Your task to perform on an android device: turn off improve location accuracy Image 0: 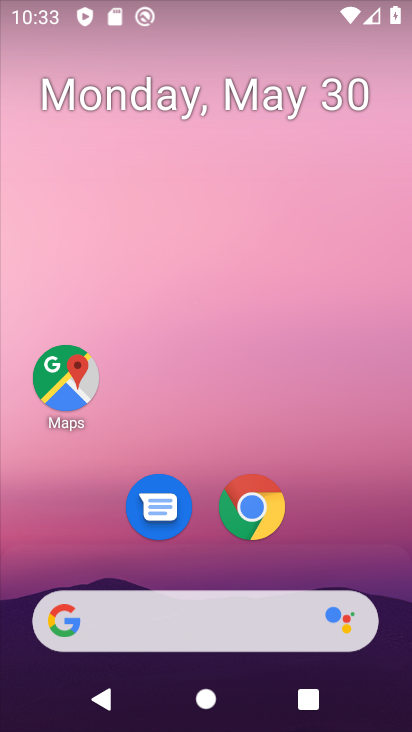
Step 0: drag from (393, 647) to (402, 0)
Your task to perform on an android device: turn off improve location accuracy Image 1: 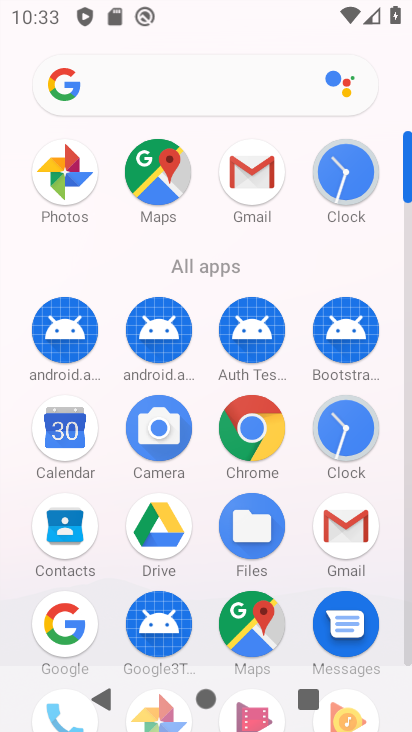
Step 1: drag from (212, 623) to (297, 86)
Your task to perform on an android device: turn off improve location accuracy Image 2: 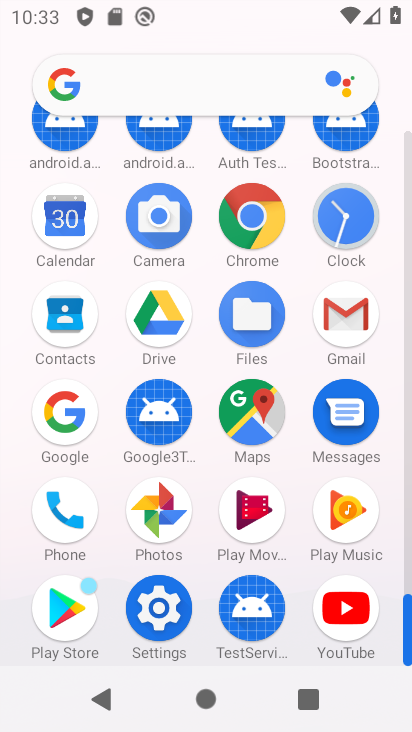
Step 2: click (146, 606)
Your task to perform on an android device: turn off improve location accuracy Image 3: 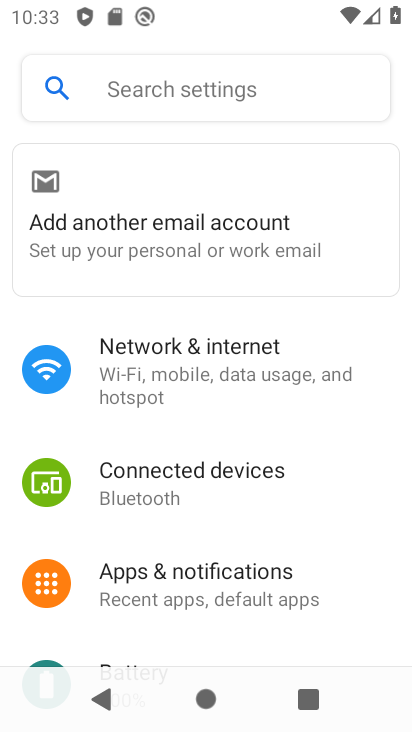
Step 3: drag from (232, 519) to (219, 143)
Your task to perform on an android device: turn off improve location accuracy Image 4: 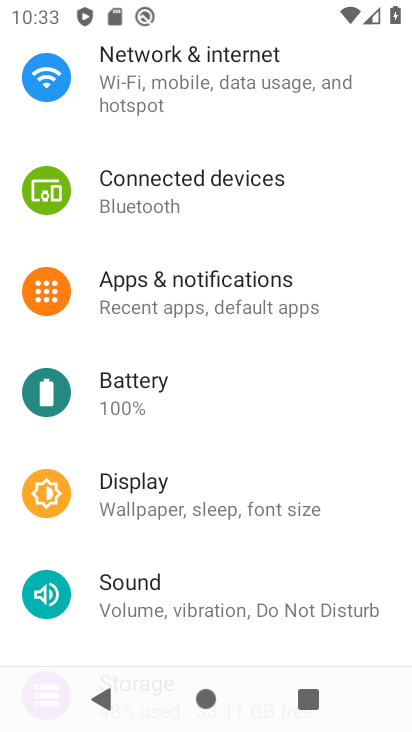
Step 4: drag from (154, 595) to (275, 204)
Your task to perform on an android device: turn off improve location accuracy Image 5: 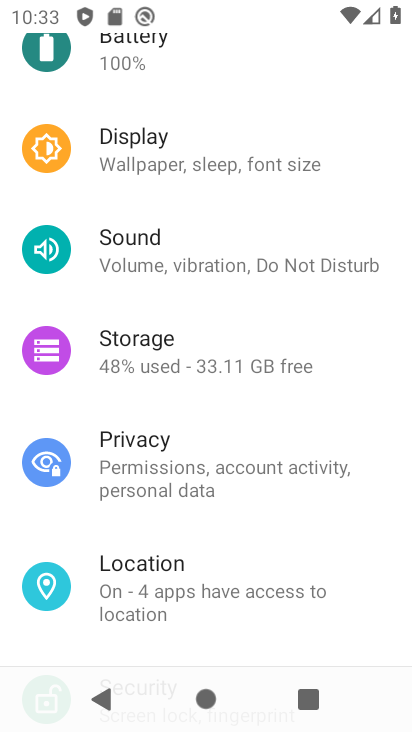
Step 5: click (104, 561)
Your task to perform on an android device: turn off improve location accuracy Image 6: 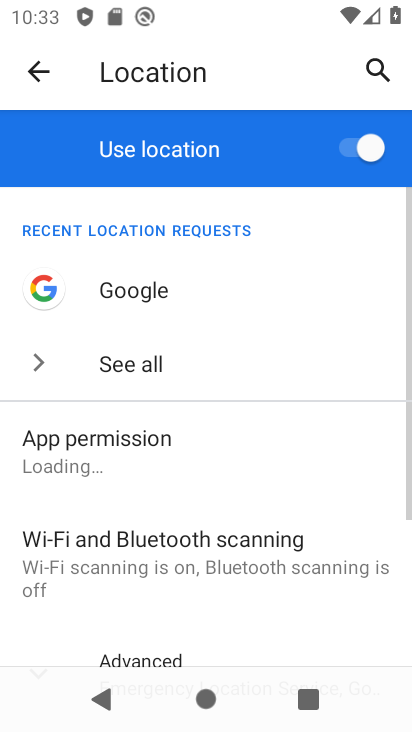
Step 6: drag from (97, 593) to (185, 243)
Your task to perform on an android device: turn off improve location accuracy Image 7: 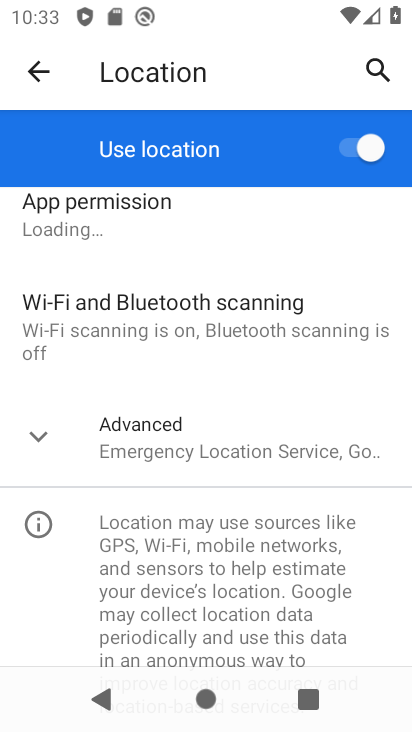
Step 7: click (123, 438)
Your task to perform on an android device: turn off improve location accuracy Image 8: 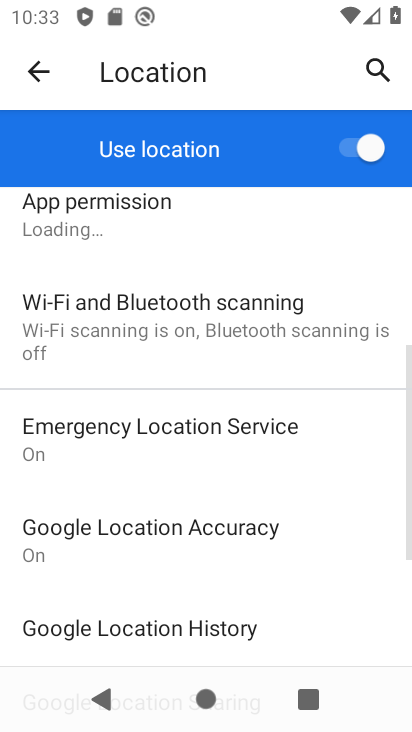
Step 8: click (171, 541)
Your task to perform on an android device: turn off improve location accuracy Image 9: 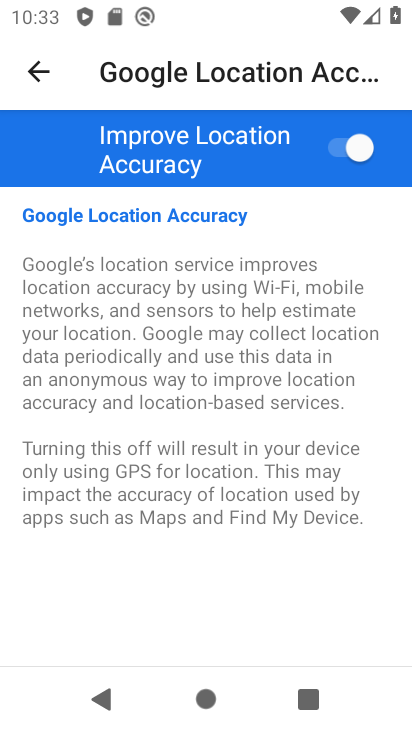
Step 9: click (325, 146)
Your task to perform on an android device: turn off improve location accuracy Image 10: 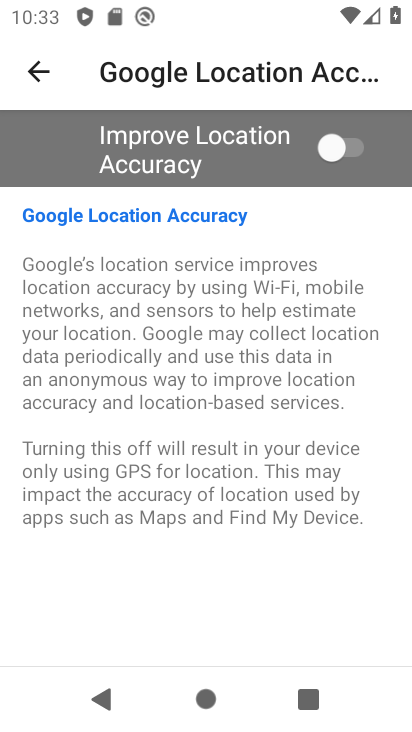
Step 10: task complete